Your task to perform on an android device: What is the news today? Image 0: 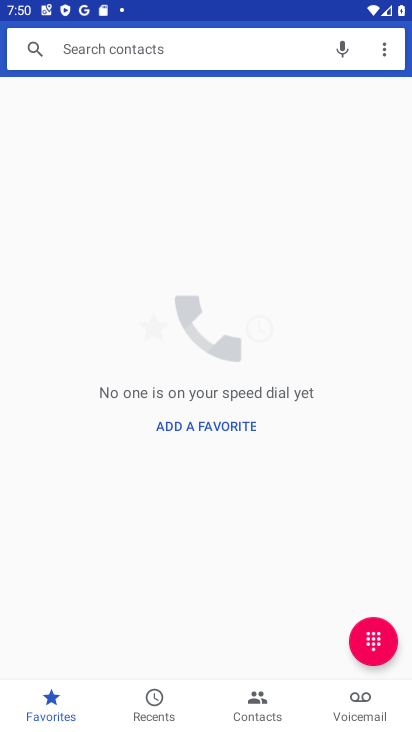
Step 0: press home button
Your task to perform on an android device: What is the news today? Image 1: 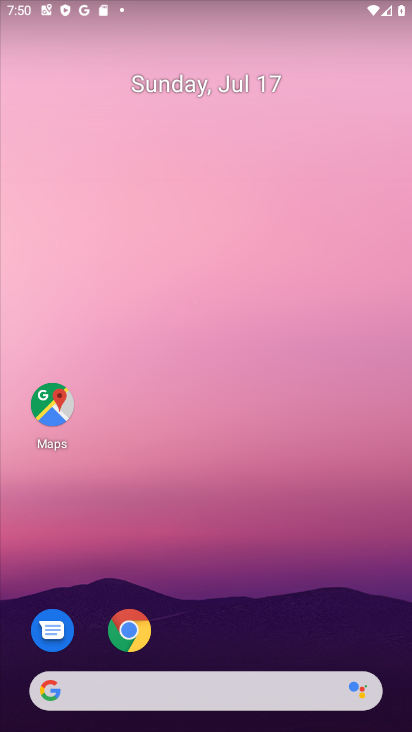
Step 1: drag from (198, 637) to (228, 5)
Your task to perform on an android device: What is the news today? Image 2: 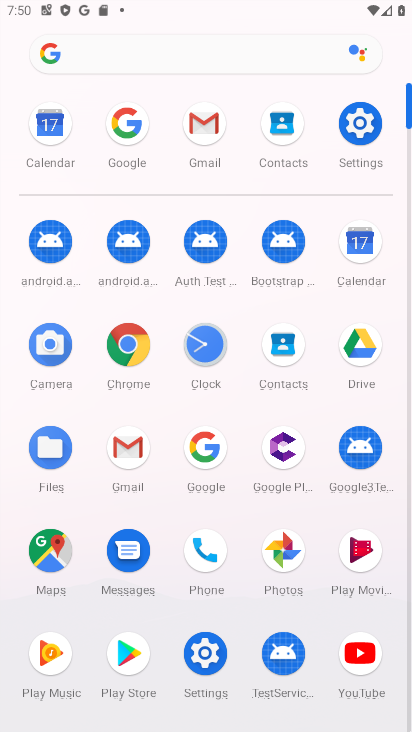
Step 2: click (198, 460)
Your task to perform on an android device: What is the news today? Image 3: 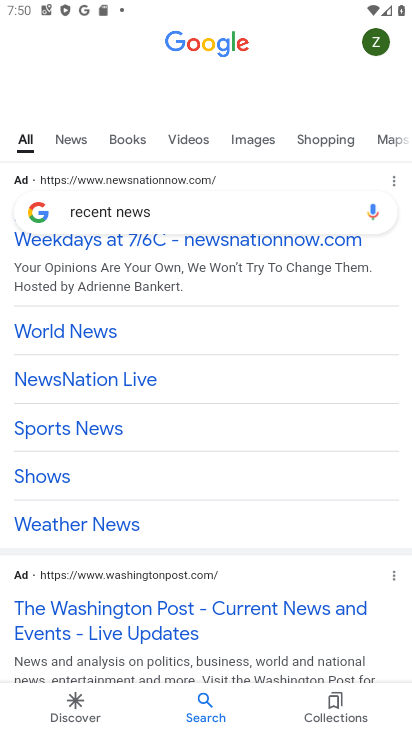
Step 3: click (158, 97)
Your task to perform on an android device: What is the news today? Image 4: 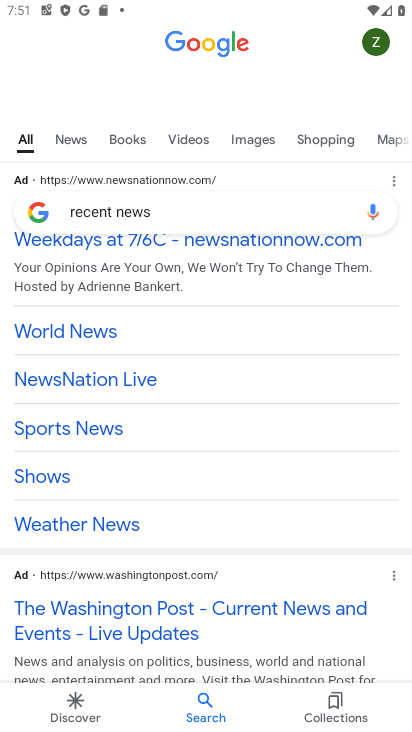
Step 4: click (172, 214)
Your task to perform on an android device: What is the news today? Image 5: 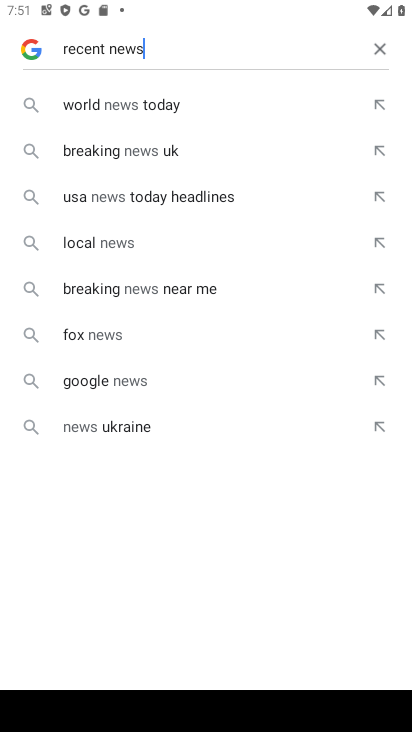
Step 5: click (381, 47)
Your task to perform on an android device: What is the news today? Image 6: 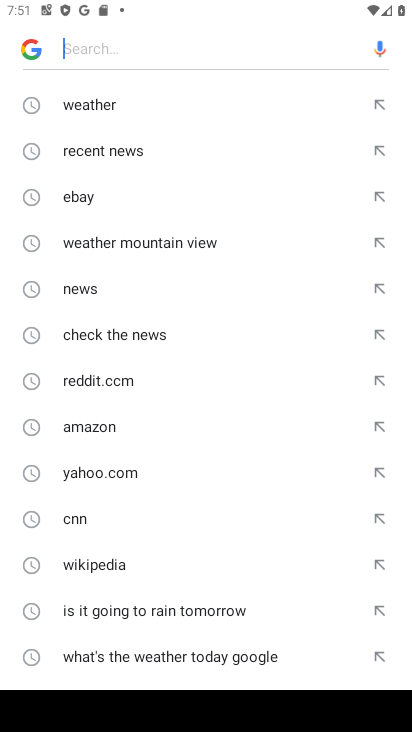
Step 6: type "news today"
Your task to perform on an android device: What is the news today? Image 7: 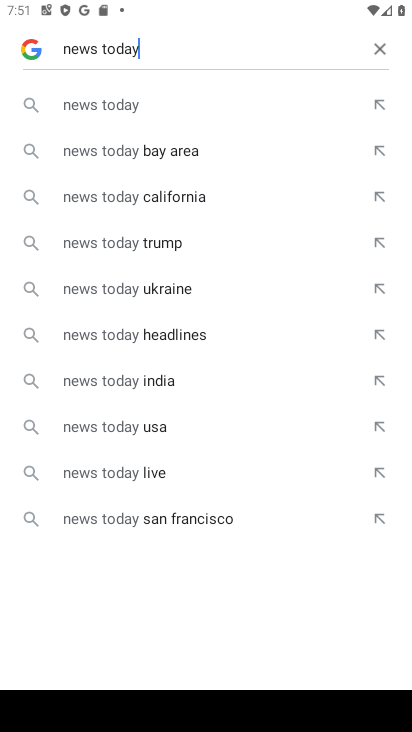
Step 7: click (100, 103)
Your task to perform on an android device: What is the news today? Image 8: 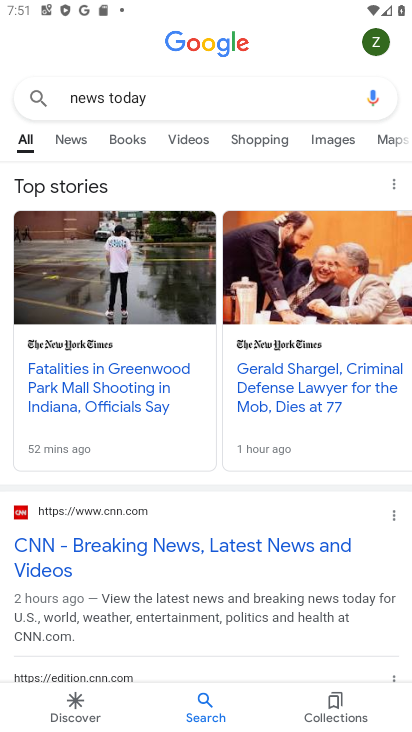
Step 8: click (76, 140)
Your task to perform on an android device: What is the news today? Image 9: 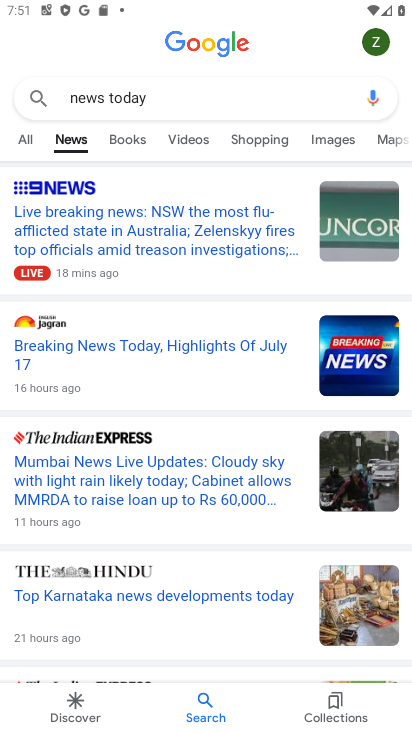
Step 9: task complete